Your task to perform on an android device: snooze an email in the gmail app Image 0: 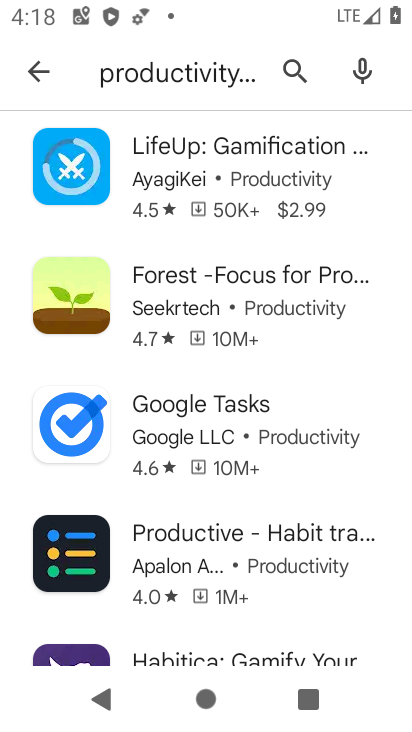
Step 0: press home button
Your task to perform on an android device: snooze an email in the gmail app Image 1: 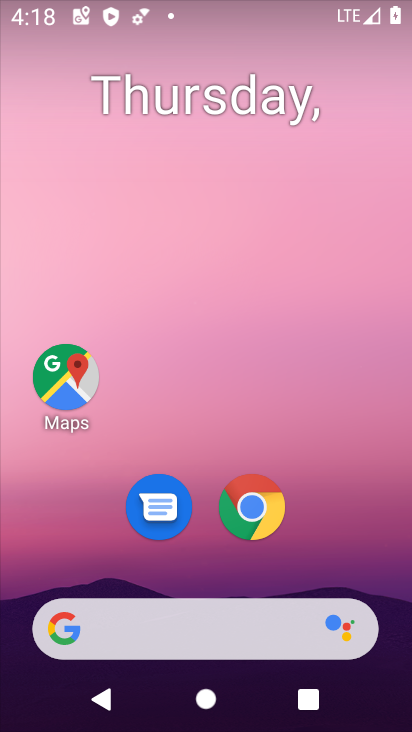
Step 1: drag from (376, 505) to (394, 143)
Your task to perform on an android device: snooze an email in the gmail app Image 2: 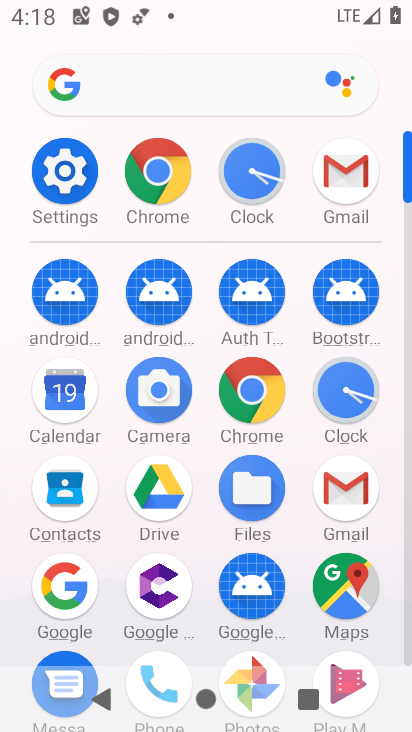
Step 2: click (348, 196)
Your task to perform on an android device: snooze an email in the gmail app Image 3: 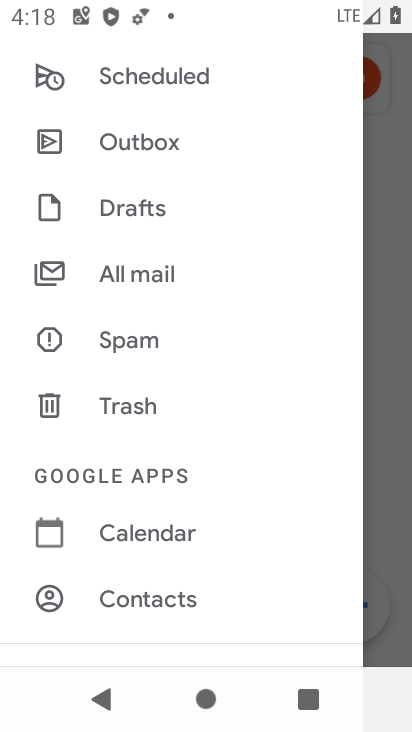
Step 3: task complete